Your task to perform on an android device: Is it going to rain today? Image 0: 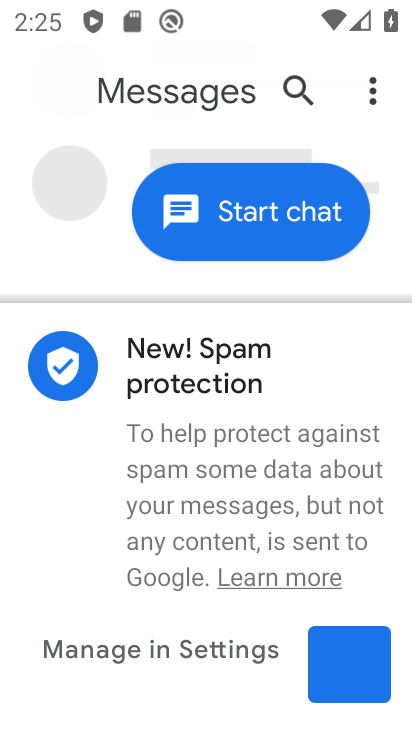
Step 0: press home button
Your task to perform on an android device: Is it going to rain today? Image 1: 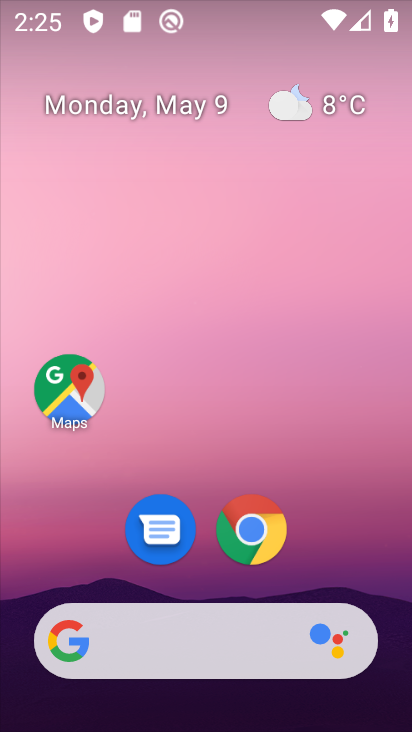
Step 1: click (259, 640)
Your task to perform on an android device: Is it going to rain today? Image 2: 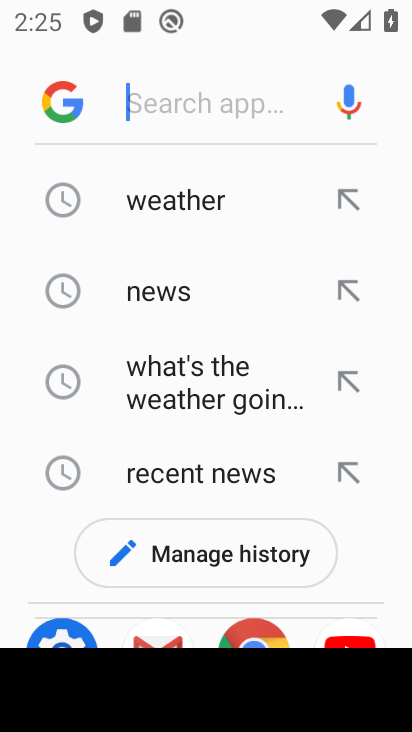
Step 2: type "Is it going to rain today?"
Your task to perform on an android device: Is it going to rain today? Image 3: 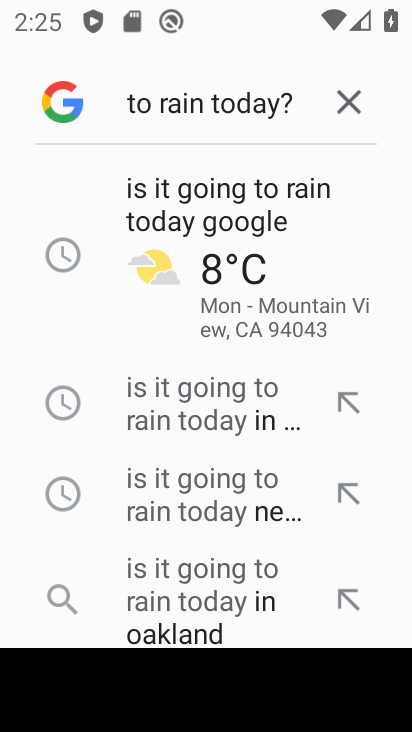
Step 3: click (277, 223)
Your task to perform on an android device: Is it going to rain today? Image 4: 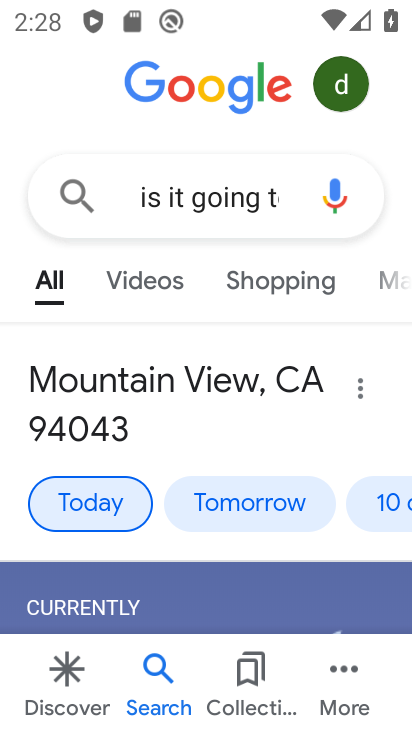
Step 4: task complete